Your task to perform on an android device: Open Amazon Image 0: 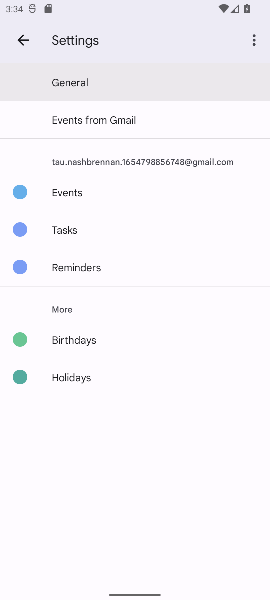
Step 0: press home button
Your task to perform on an android device: Open Amazon Image 1: 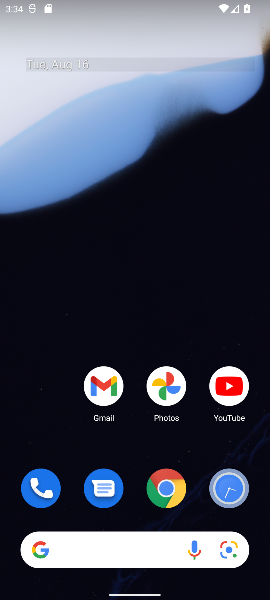
Step 1: click (166, 487)
Your task to perform on an android device: Open Amazon Image 2: 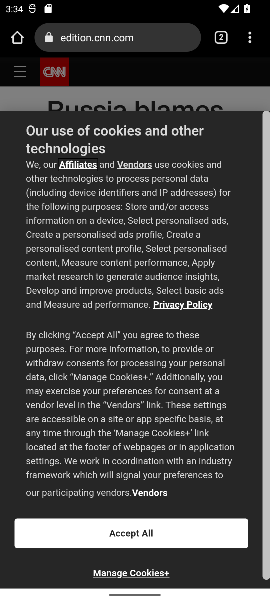
Step 2: task complete